Your task to perform on an android device: Go to network settings Image 0: 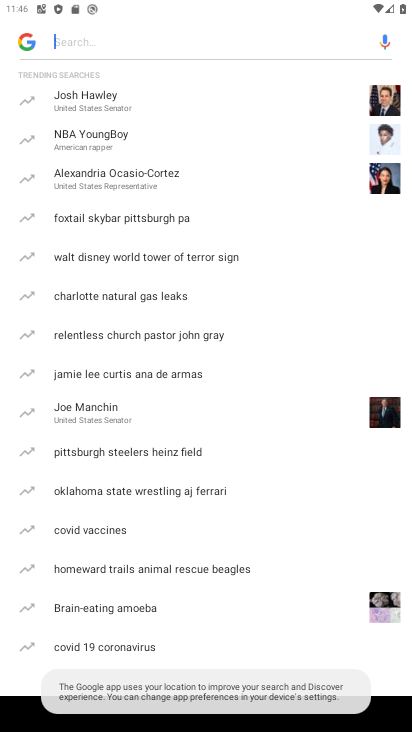
Step 0: press home button
Your task to perform on an android device: Go to network settings Image 1: 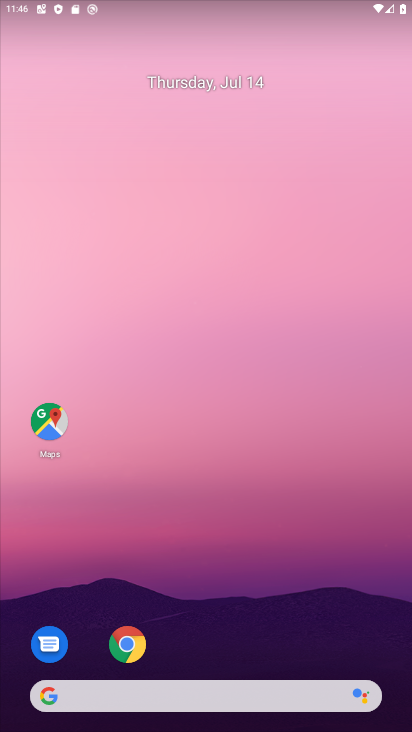
Step 1: drag from (281, 433) to (326, 158)
Your task to perform on an android device: Go to network settings Image 2: 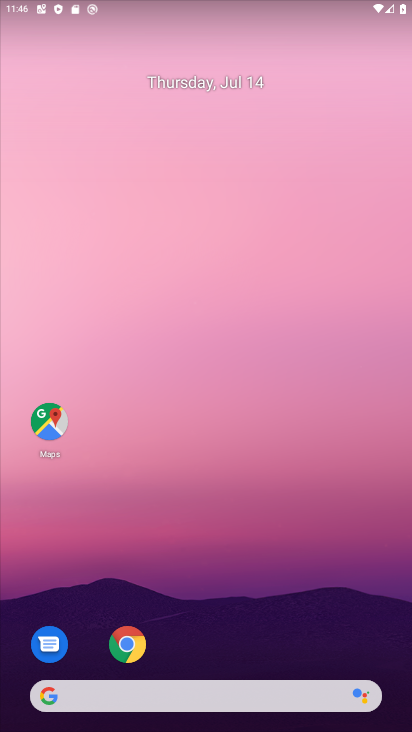
Step 2: drag from (229, 615) to (274, 195)
Your task to perform on an android device: Go to network settings Image 3: 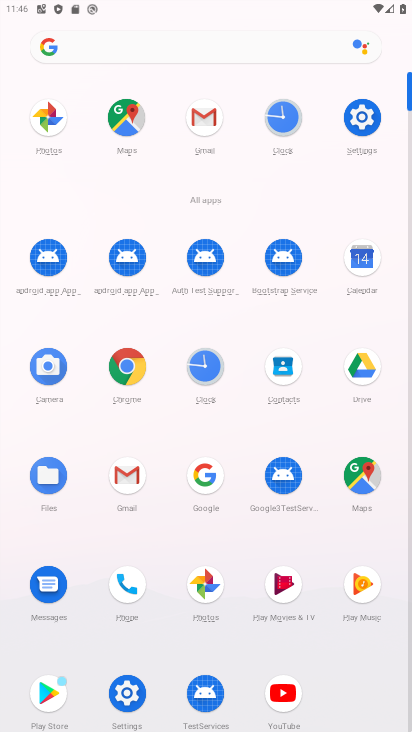
Step 3: click (119, 685)
Your task to perform on an android device: Go to network settings Image 4: 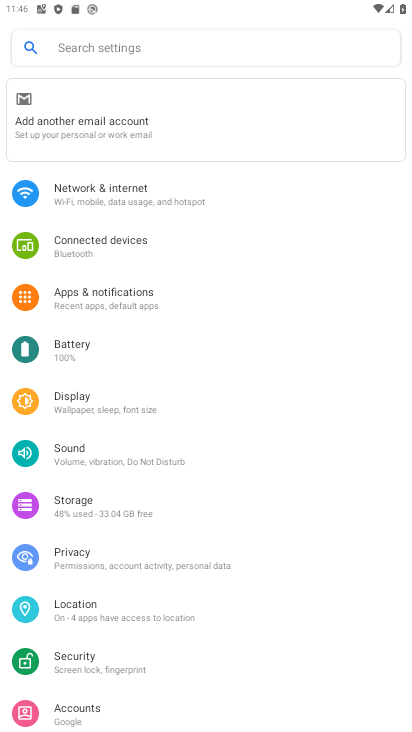
Step 4: click (162, 205)
Your task to perform on an android device: Go to network settings Image 5: 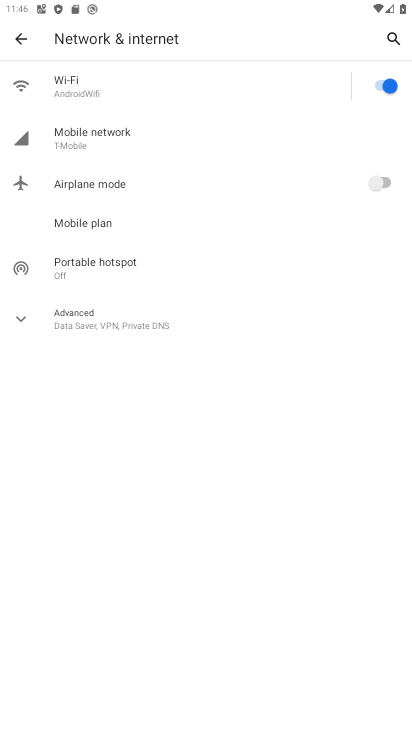
Step 5: click (126, 133)
Your task to perform on an android device: Go to network settings Image 6: 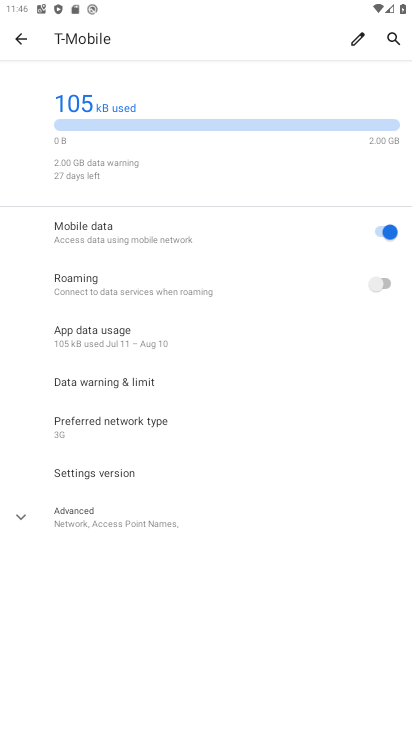
Step 6: task complete